Your task to perform on an android device: turn off data saver in the chrome app Image 0: 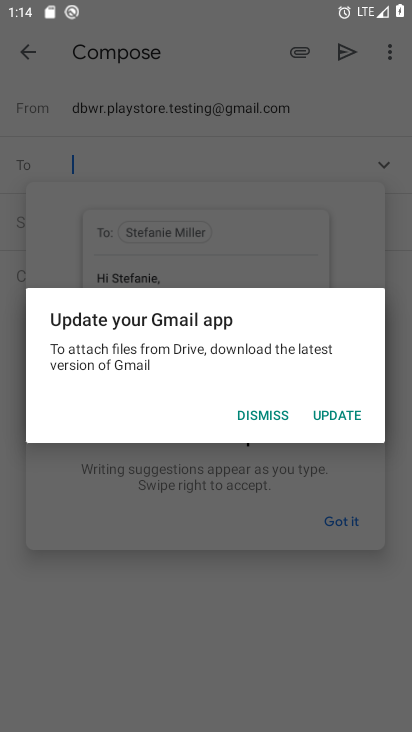
Step 0: press home button
Your task to perform on an android device: turn off data saver in the chrome app Image 1: 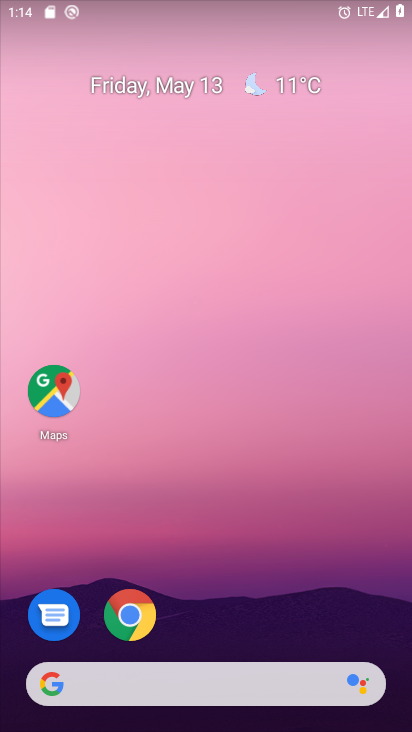
Step 1: click (139, 608)
Your task to perform on an android device: turn off data saver in the chrome app Image 2: 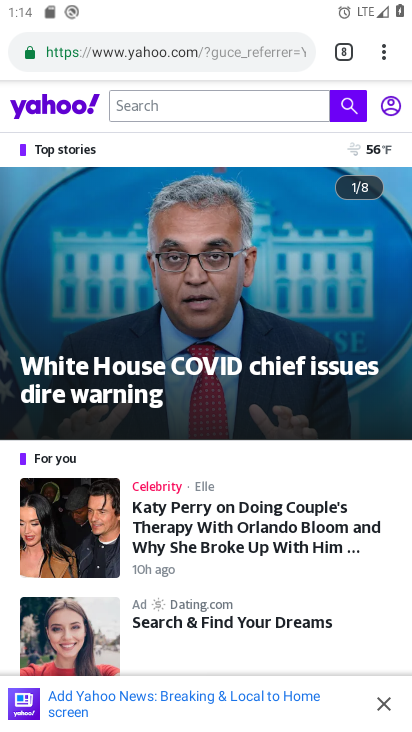
Step 2: click (379, 46)
Your task to perform on an android device: turn off data saver in the chrome app Image 3: 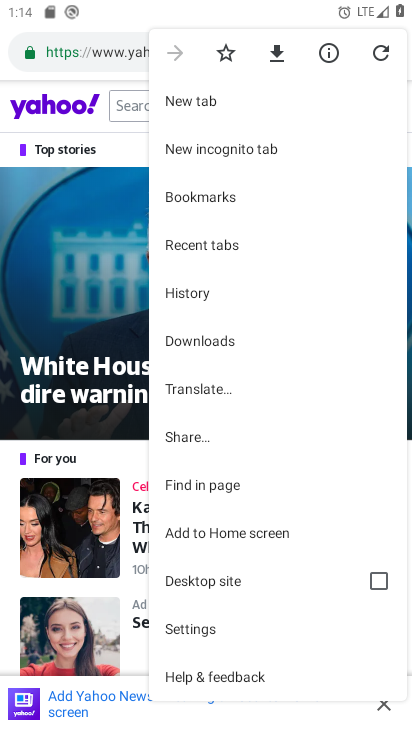
Step 3: click (199, 631)
Your task to perform on an android device: turn off data saver in the chrome app Image 4: 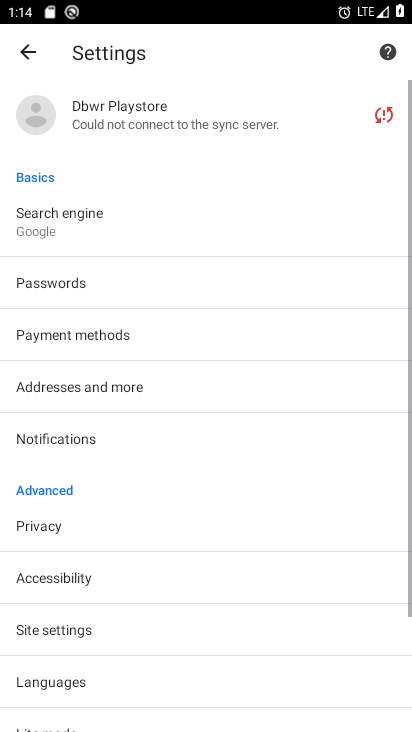
Step 4: drag from (285, 567) to (329, 288)
Your task to perform on an android device: turn off data saver in the chrome app Image 5: 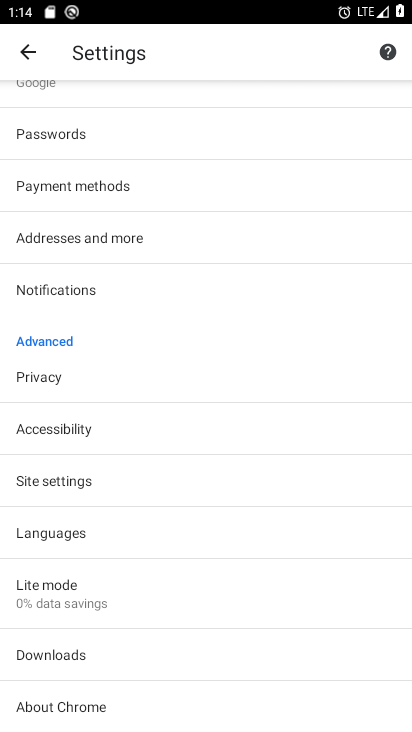
Step 5: click (191, 590)
Your task to perform on an android device: turn off data saver in the chrome app Image 6: 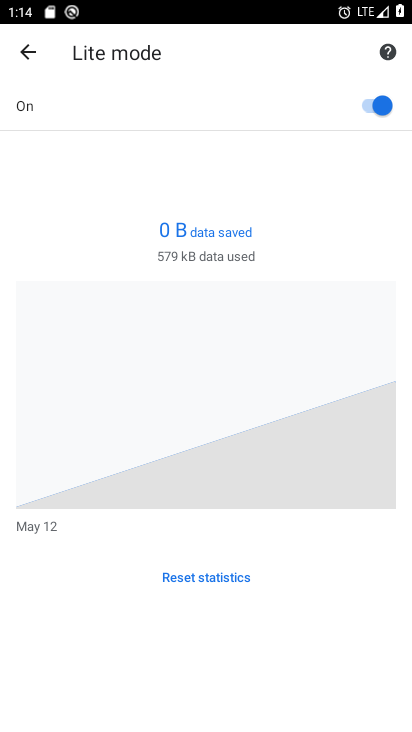
Step 6: click (366, 95)
Your task to perform on an android device: turn off data saver in the chrome app Image 7: 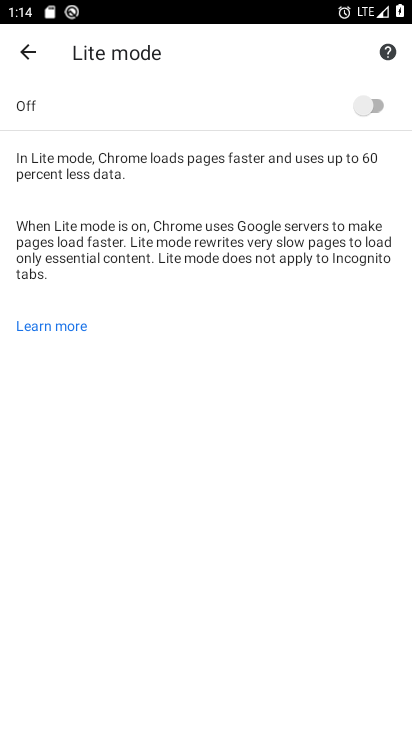
Step 7: task complete